Your task to perform on an android device: Open my contact list Image 0: 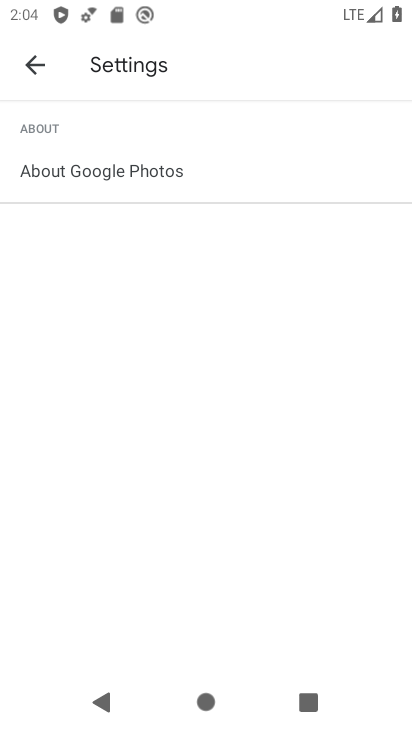
Step 0: press home button
Your task to perform on an android device: Open my contact list Image 1: 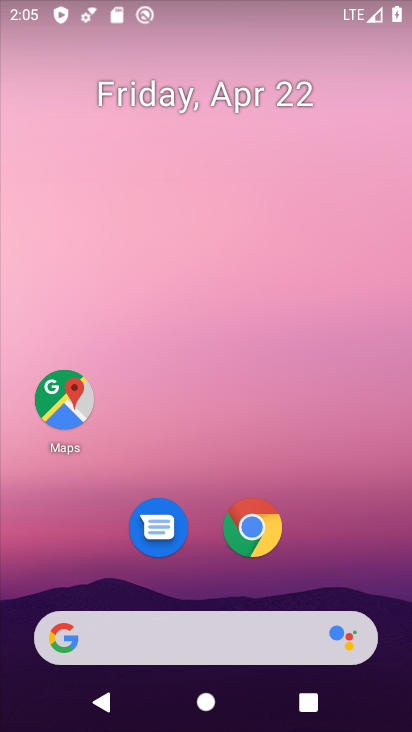
Step 1: drag from (320, 533) to (330, 117)
Your task to perform on an android device: Open my contact list Image 2: 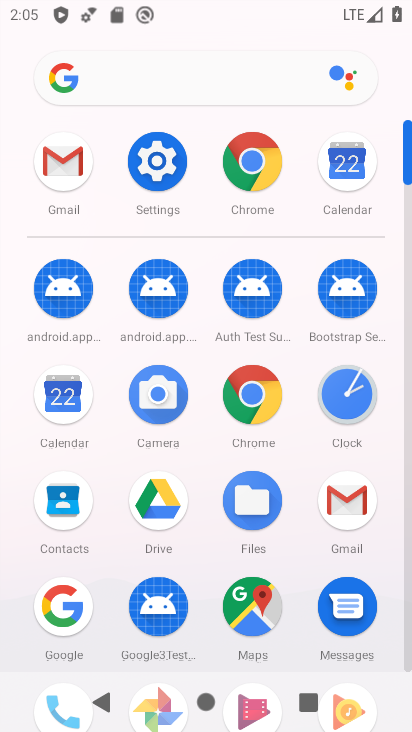
Step 2: click (62, 511)
Your task to perform on an android device: Open my contact list Image 3: 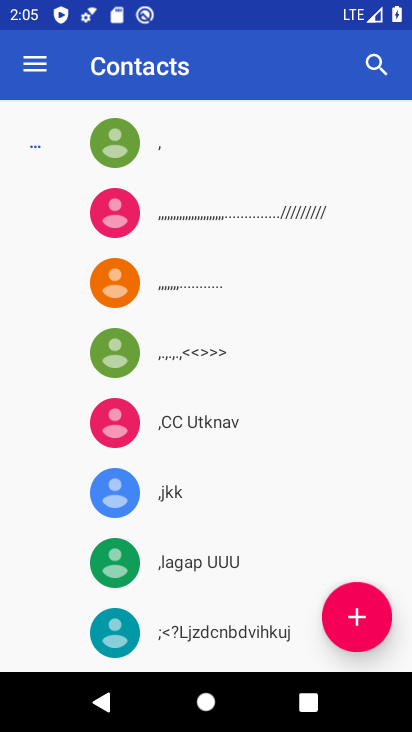
Step 3: task complete